Your task to perform on an android device: turn on notifications settings in the gmail app Image 0: 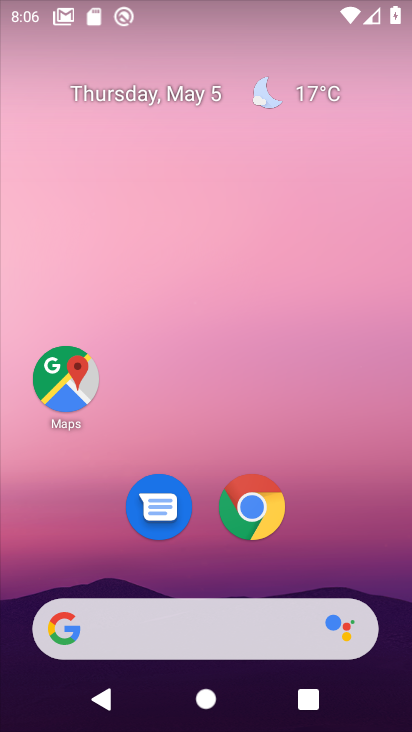
Step 0: drag from (168, 593) to (263, 117)
Your task to perform on an android device: turn on notifications settings in the gmail app Image 1: 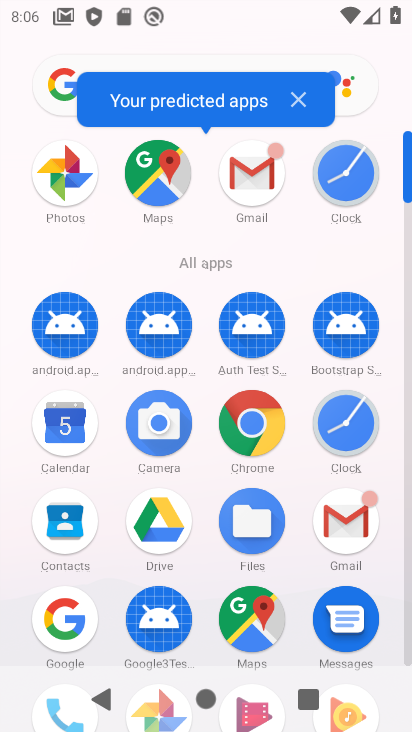
Step 1: click (336, 522)
Your task to perform on an android device: turn on notifications settings in the gmail app Image 2: 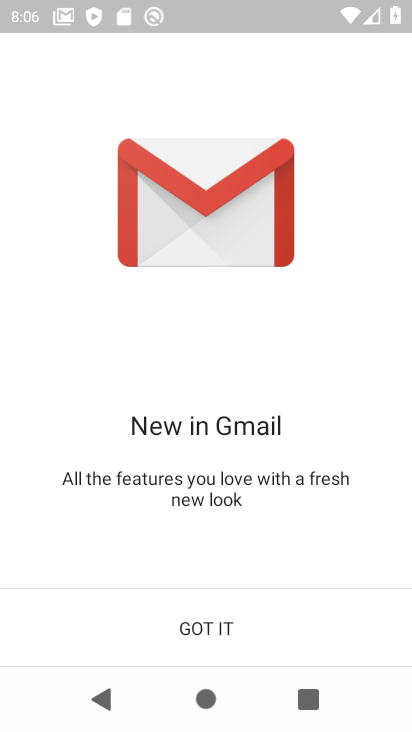
Step 2: click (176, 627)
Your task to perform on an android device: turn on notifications settings in the gmail app Image 3: 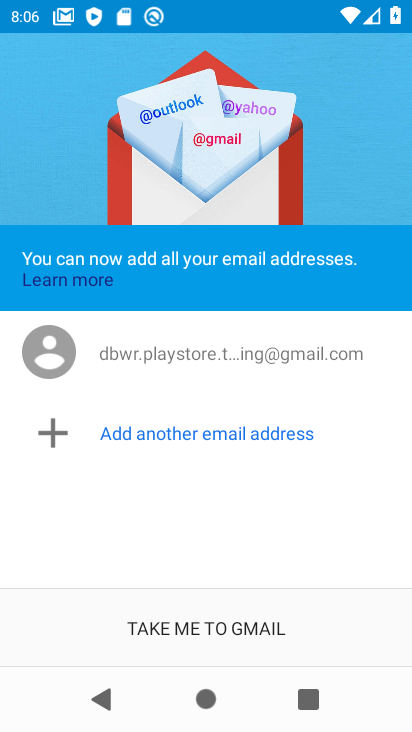
Step 3: click (197, 624)
Your task to perform on an android device: turn on notifications settings in the gmail app Image 4: 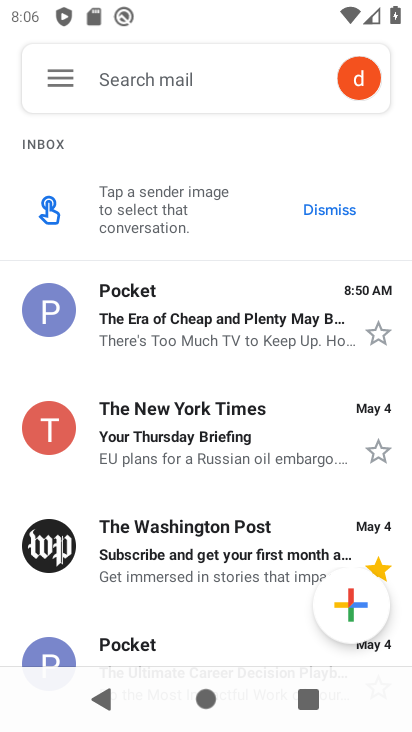
Step 4: click (66, 79)
Your task to perform on an android device: turn on notifications settings in the gmail app Image 5: 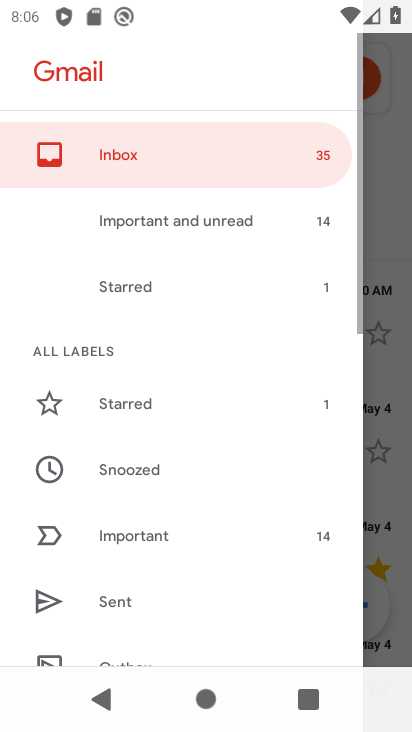
Step 5: drag from (103, 666) to (246, 214)
Your task to perform on an android device: turn on notifications settings in the gmail app Image 6: 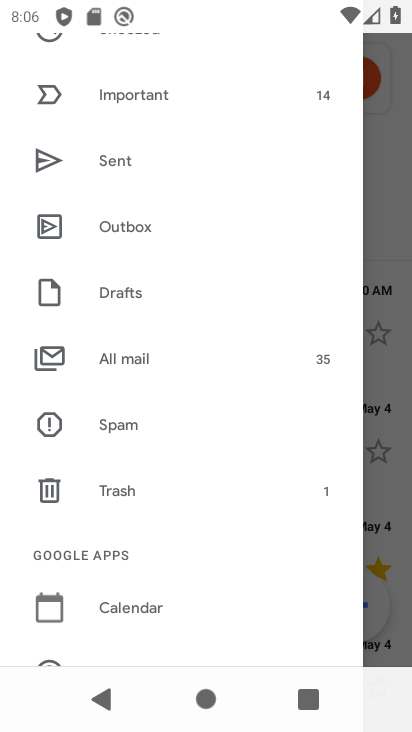
Step 6: drag from (108, 611) to (222, 179)
Your task to perform on an android device: turn on notifications settings in the gmail app Image 7: 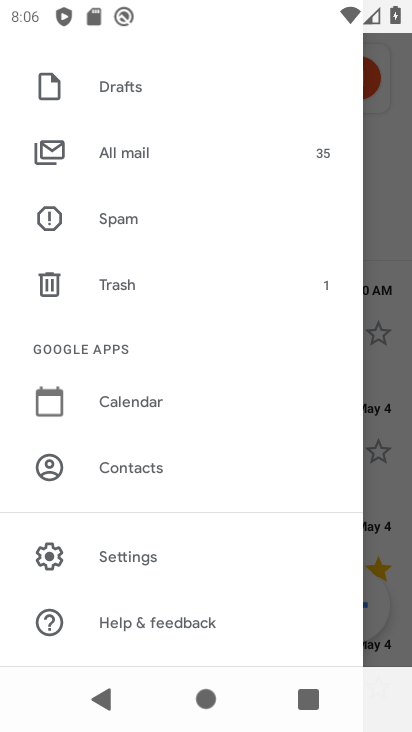
Step 7: click (151, 558)
Your task to perform on an android device: turn on notifications settings in the gmail app Image 8: 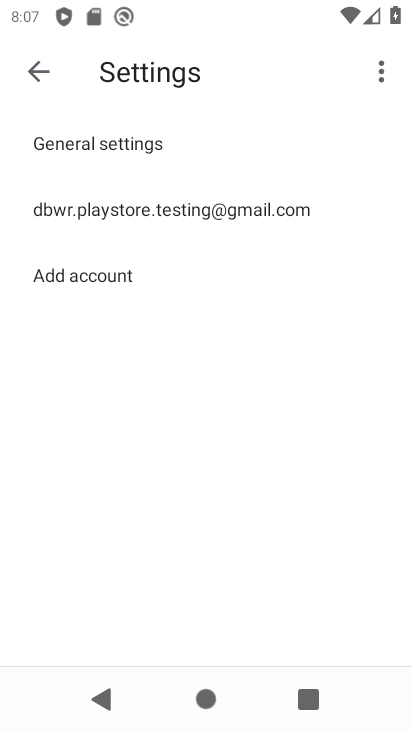
Step 8: click (196, 214)
Your task to perform on an android device: turn on notifications settings in the gmail app Image 9: 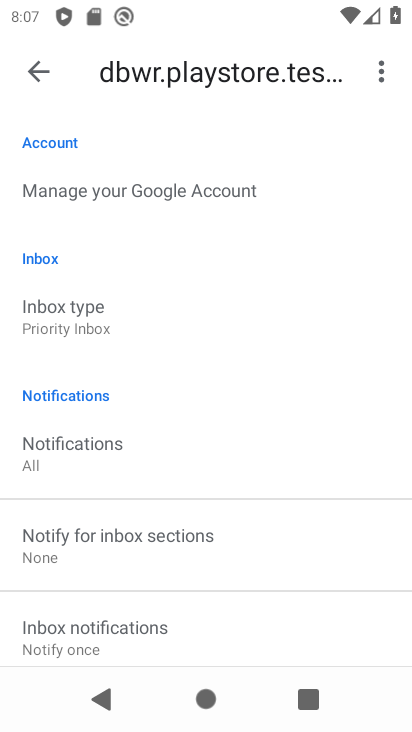
Step 9: drag from (156, 562) to (222, 287)
Your task to perform on an android device: turn on notifications settings in the gmail app Image 10: 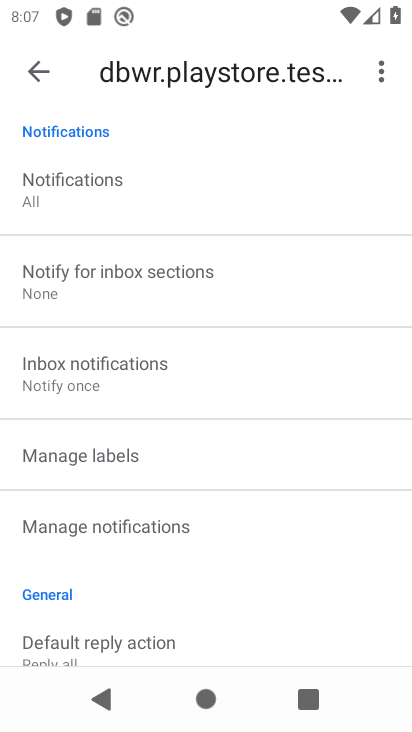
Step 10: click (174, 541)
Your task to perform on an android device: turn on notifications settings in the gmail app Image 11: 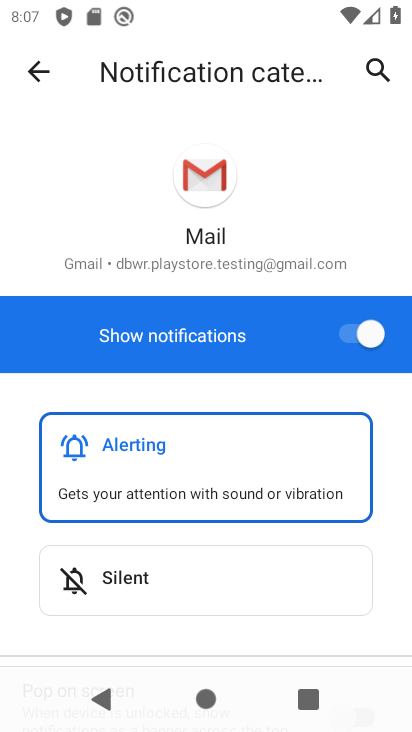
Step 11: task complete